Your task to perform on an android device: Is it going to rain tomorrow? Image 0: 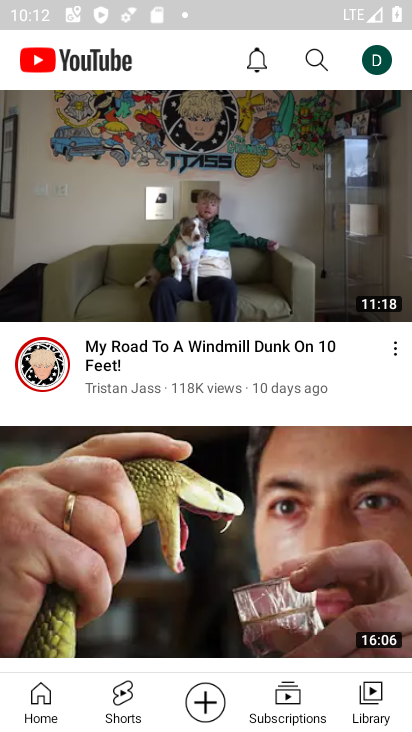
Step 0: press home button
Your task to perform on an android device: Is it going to rain tomorrow? Image 1: 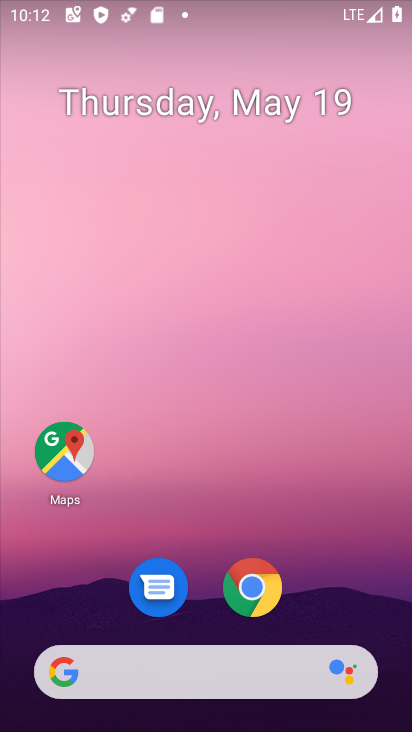
Step 1: click (211, 652)
Your task to perform on an android device: Is it going to rain tomorrow? Image 2: 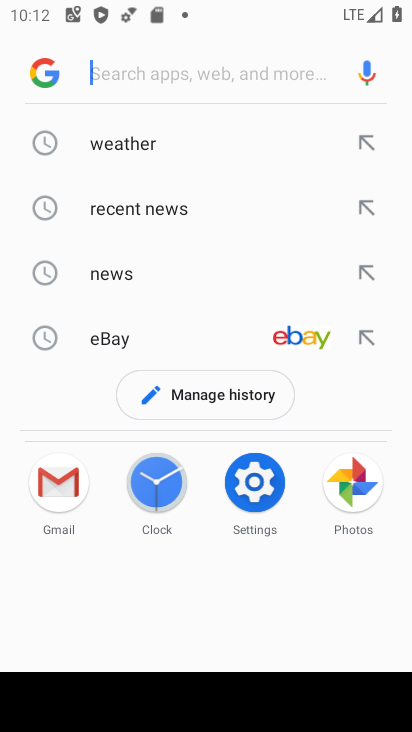
Step 2: click (149, 143)
Your task to perform on an android device: Is it going to rain tomorrow? Image 3: 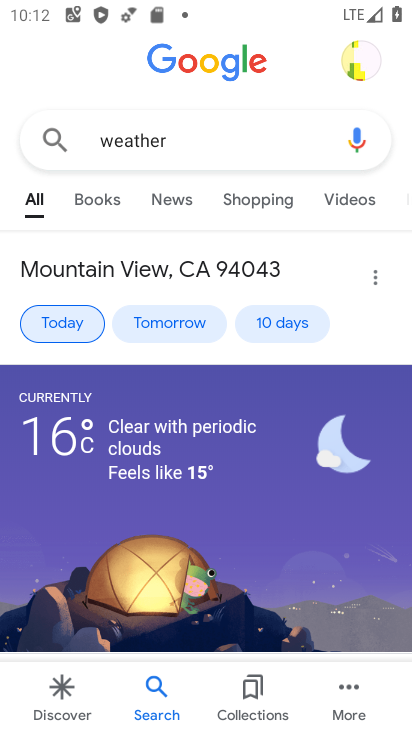
Step 3: click (162, 317)
Your task to perform on an android device: Is it going to rain tomorrow? Image 4: 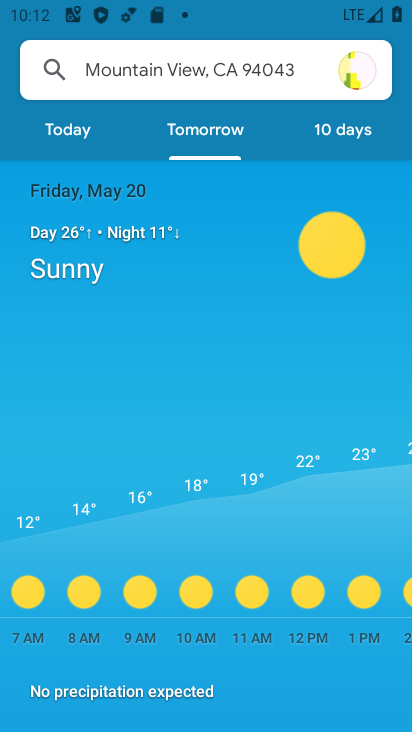
Step 4: task complete